Your task to perform on an android device: Open the web browser Image 0: 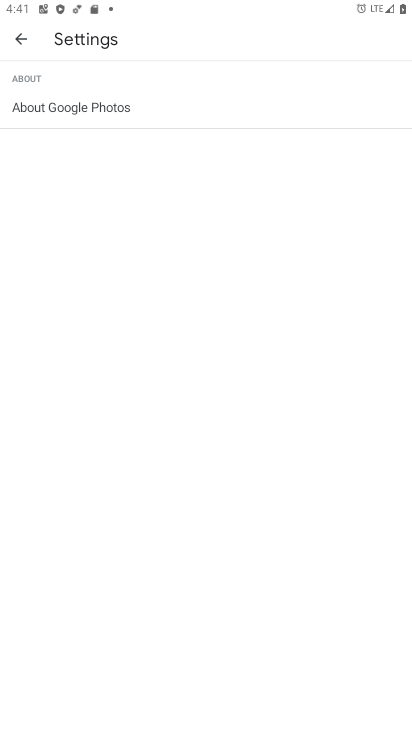
Step 0: press home button
Your task to perform on an android device: Open the web browser Image 1: 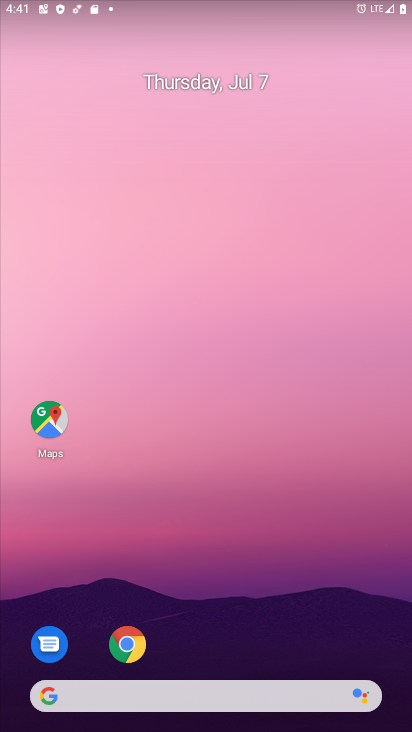
Step 1: click (128, 643)
Your task to perform on an android device: Open the web browser Image 2: 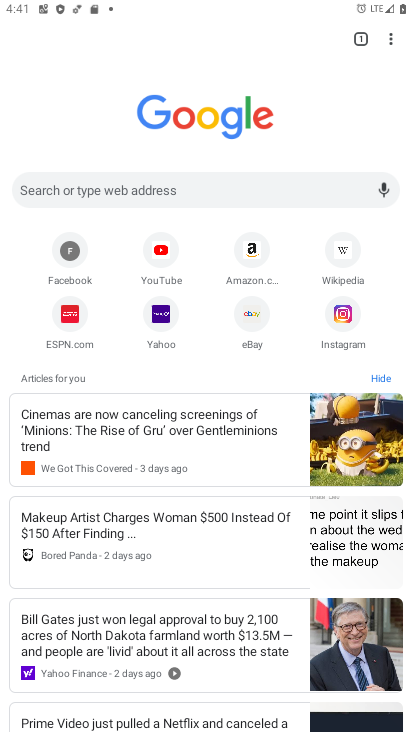
Step 2: task complete